Your task to perform on an android device: turn off picture-in-picture Image 0: 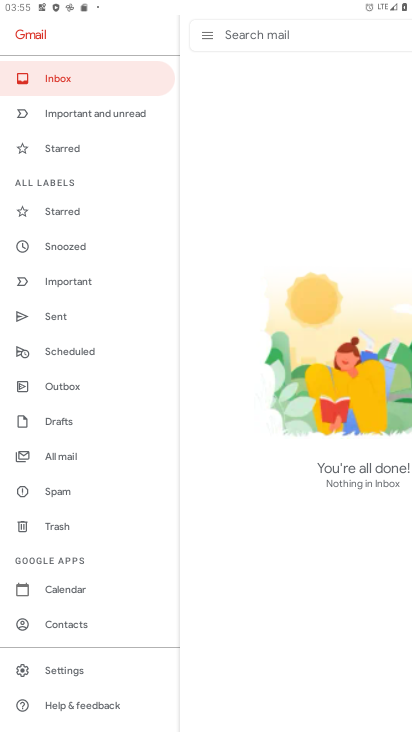
Step 0: press home button
Your task to perform on an android device: turn off picture-in-picture Image 1: 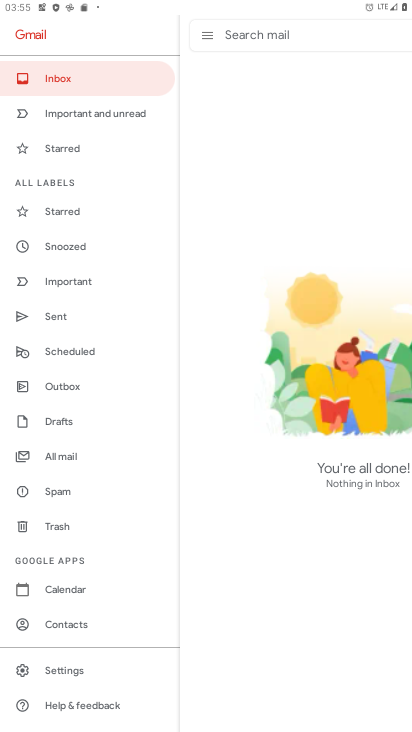
Step 1: press home button
Your task to perform on an android device: turn off picture-in-picture Image 2: 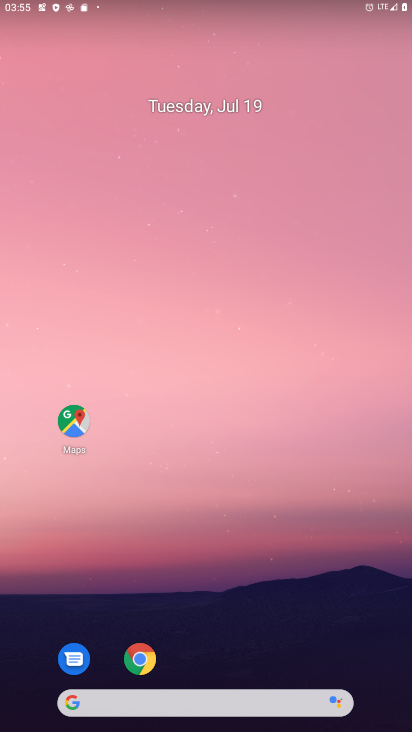
Step 2: click (145, 643)
Your task to perform on an android device: turn off picture-in-picture Image 3: 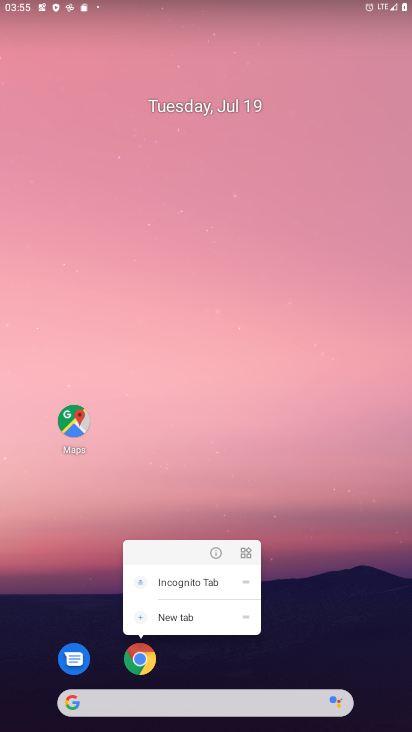
Step 3: click (207, 550)
Your task to perform on an android device: turn off picture-in-picture Image 4: 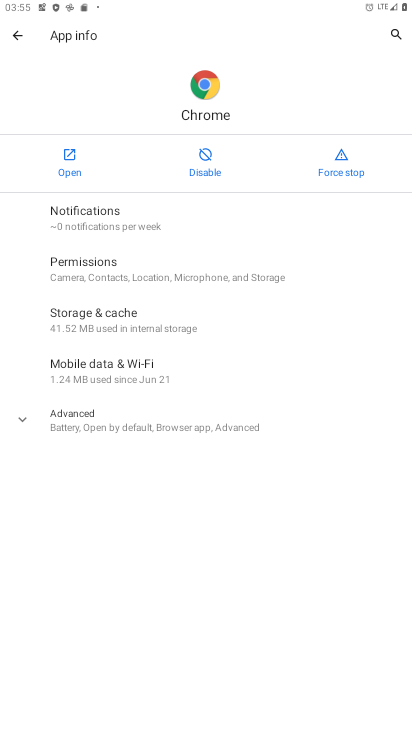
Step 4: click (126, 428)
Your task to perform on an android device: turn off picture-in-picture Image 5: 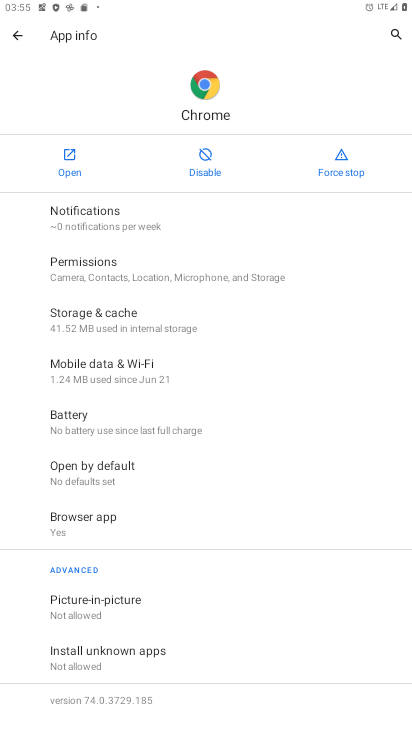
Step 5: click (59, 607)
Your task to perform on an android device: turn off picture-in-picture Image 6: 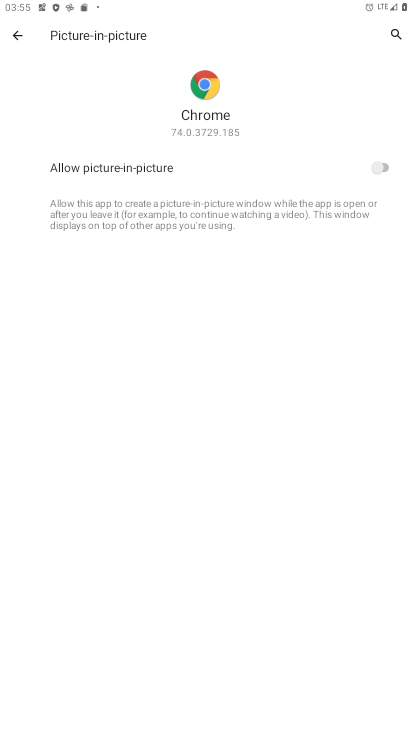
Step 6: click (236, 150)
Your task to perform on an android device: turn off picture-in-picture Image 7: 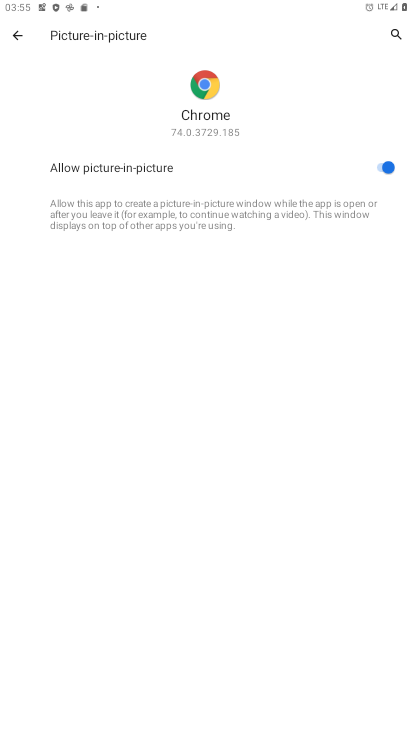
Step 7: click (236, 150)
Your task to perform on an android device: turn off picture-in-picture Image 8: 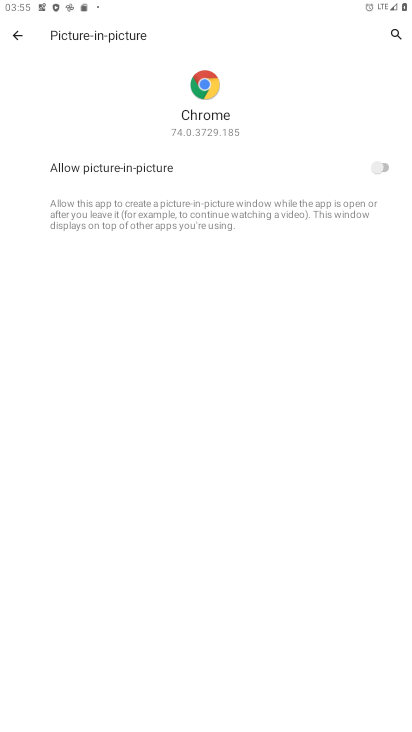
Step 8: task complete